Your task to perform on an android device: delete location history Image 0: 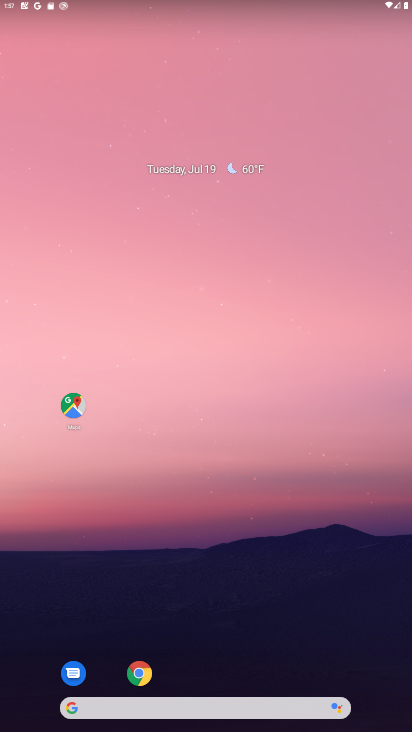
Step 0: press home button
Your task to perform on an android device: delete location history Image 1: 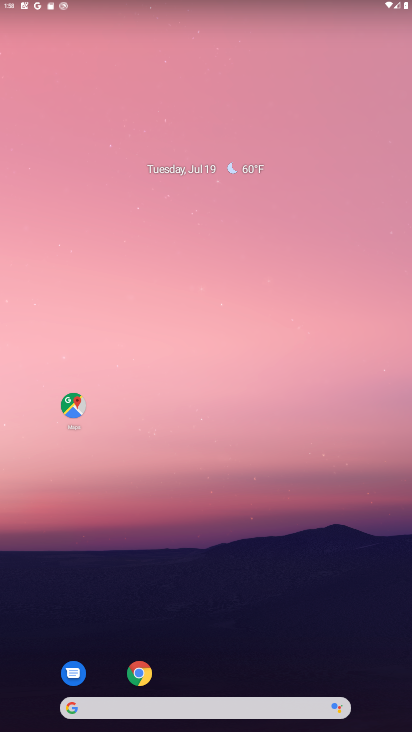
Step 1: click (67, 411)
Your task to perform on an android device: delete location history Image 2: 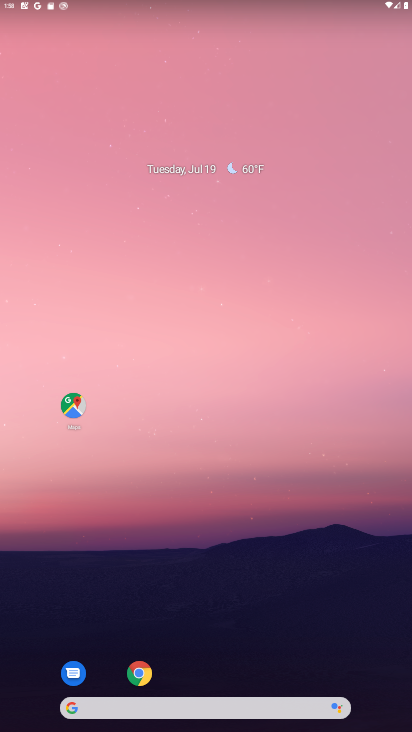
Step 2: click (67, 411)
Your task to perform on an android device: delete location history Image 3: 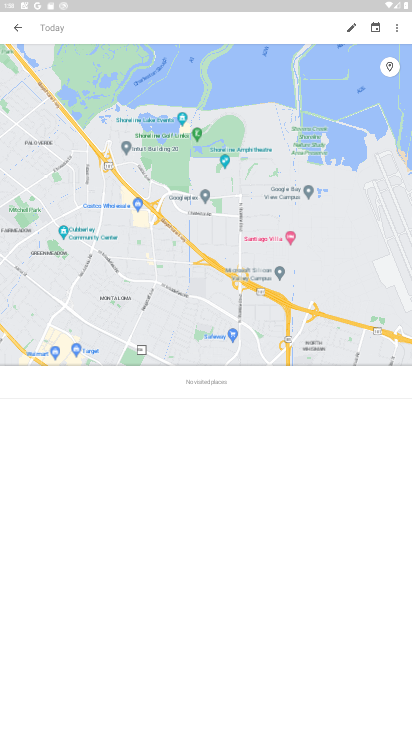
Step 3: click (399, 28)
Your task to perform on an android device: delete location history Image 4: 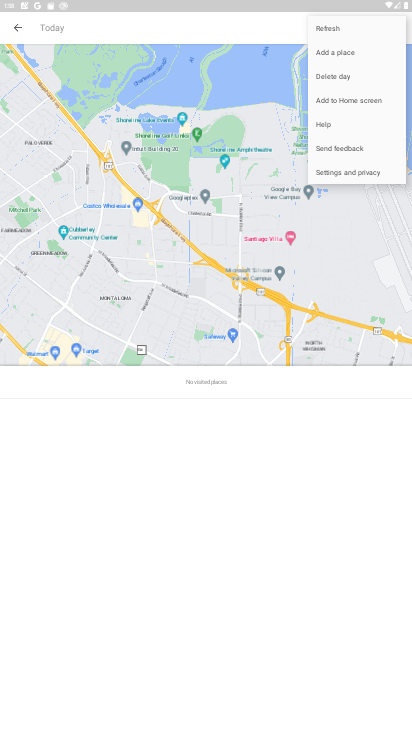
Step 4: click (347, 168)
Your task to perform on an android device: delete location history Image 5: 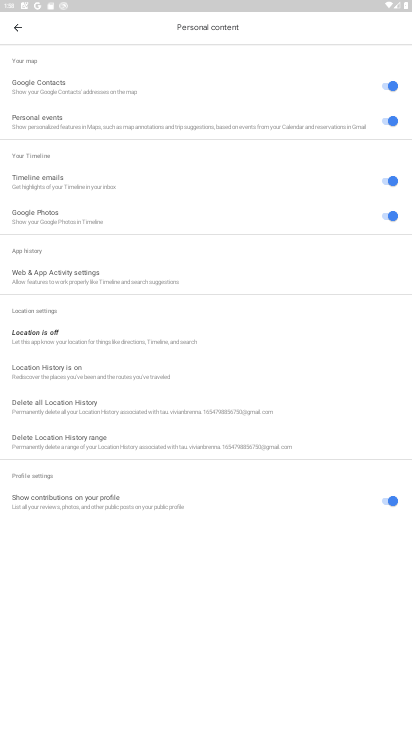
Step 5: click (77, 407)
Your task to perform on an android device: delete location history Image 6: 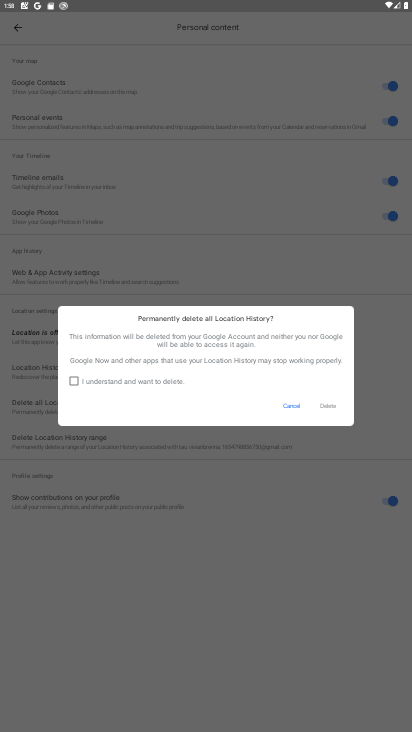
Step 6: click (70, 377)
Your task to perform on an android device: delete location history Image 7: 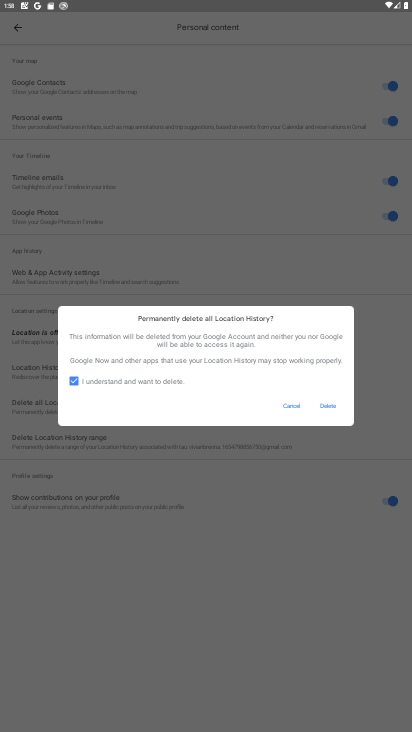
Step 7: click (331, 405)
Your task to perform on an android device: delete location history Image 8: 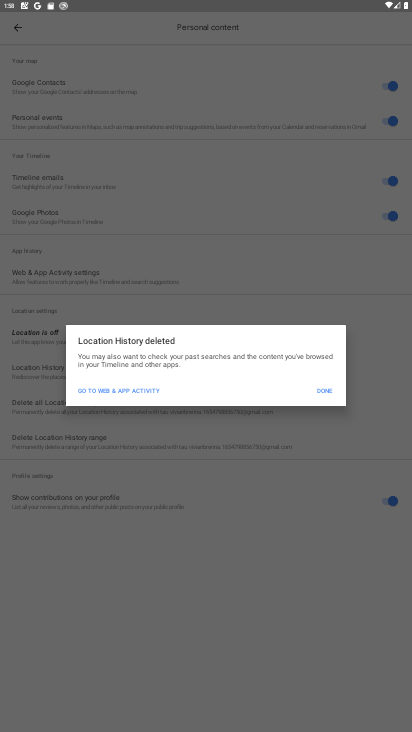
Step 8: click (332, 388)
Your task to perform on an android device: delete location history Image 9: 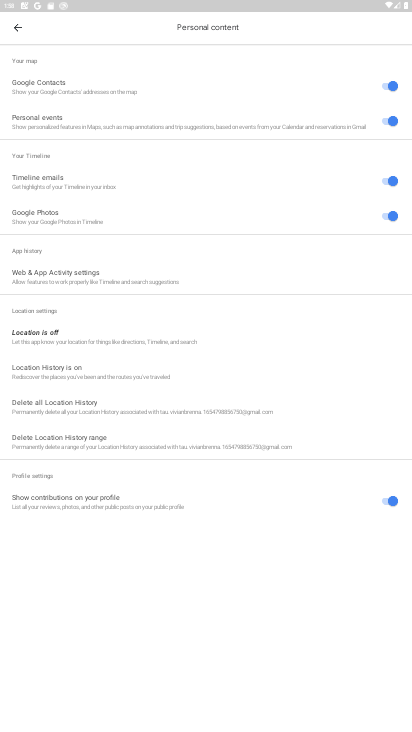
Step 9: task complete